Your task to perform on an android device: open app "Booking.com: Hotels and more" (install if not already installed) Image 0: 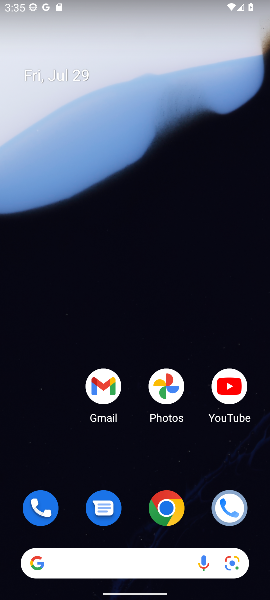
Step 0: drag from (217, 459) to (90, 41)
Your task to perform on an android device: open app "Booking.com: Hotels and more" (install if not already installed) Image 1: 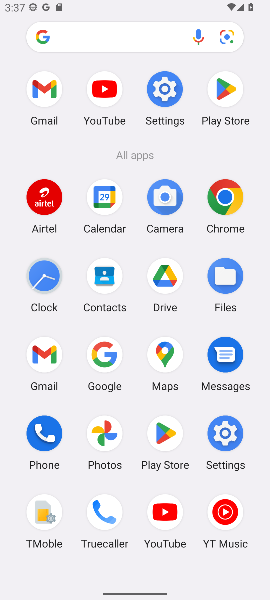
Step 1: click (159, 443)
Your task to perform on an android device: open app "Booking.com: Hotels and more" (install if not already installed) Image 2: 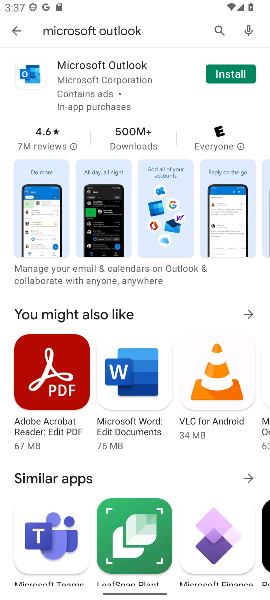
Step 2: press back button
Your task to perform on an android device: open app "Booking.com: Hotels and more" (install if not already installed) Image 3: 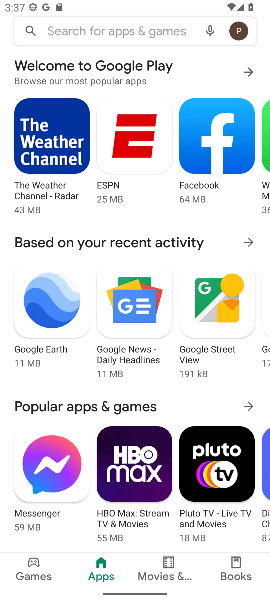
Step 3: click (94, 25)
Your task to perform on an android device: open app "Booking.com: Hotels and more" (install if not already installed) Image 4: 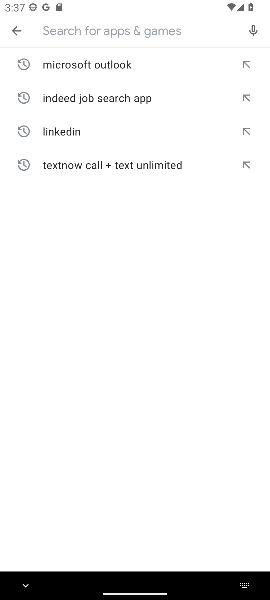
Step 4: type "Booking.com: Hotels and more"
Your task to perform on an android device: open app "Booking.com: Hotels and more" (install if not already installed) Image 5: 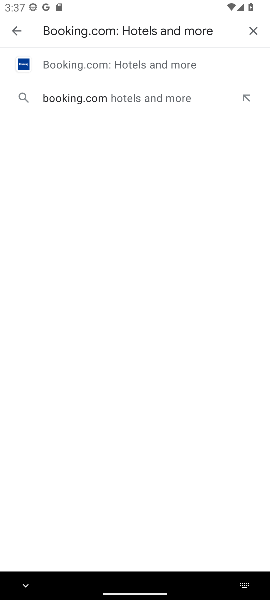
Step 5: click (91, 70)
Your task to perform on an android device: open app "Booking.com: Hotels and more" (install if not already installed) Image 6: 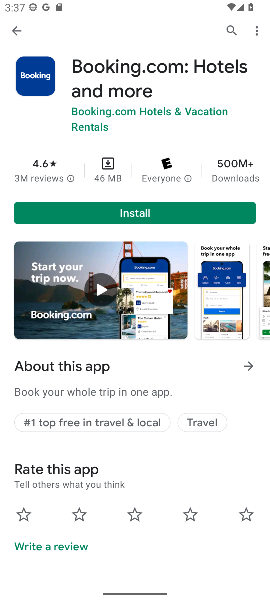
Step 6: task complete